Your task to perform on an android device: Check the weather Image 0: 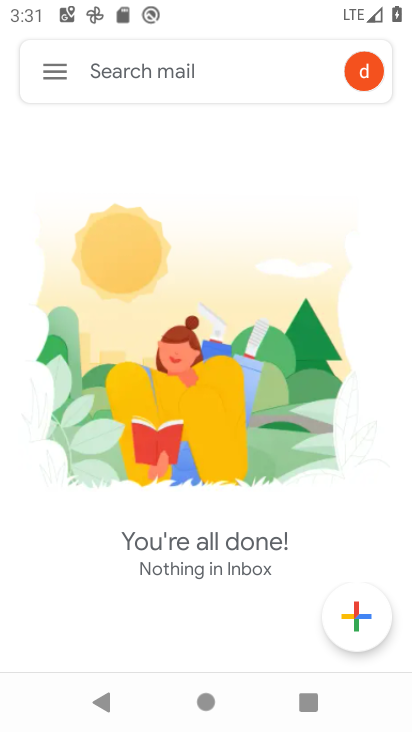
Step 0: press home button
Your task to perform on an android device: Check the weather Image 1: 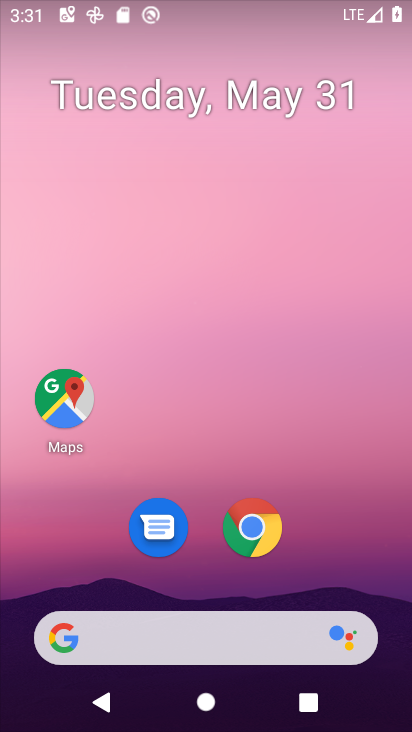
Step 1: drag from (370, 478) to (349, 118)
Your task to perform on an android device: Check the weather Image 2: 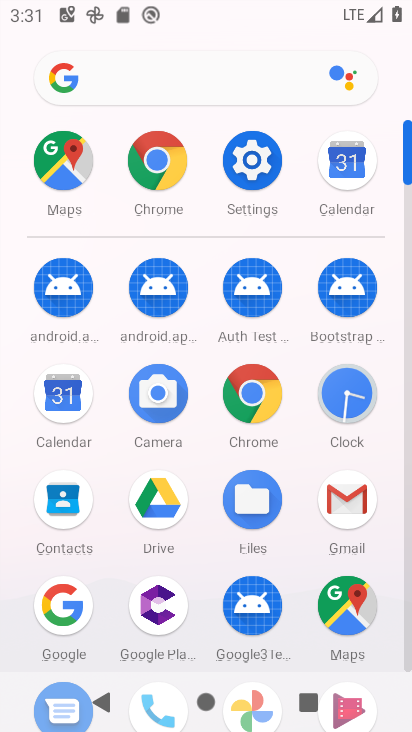
Step 2: click (56, 70)
Your task to perform on an android device: Check the weather Image 3: 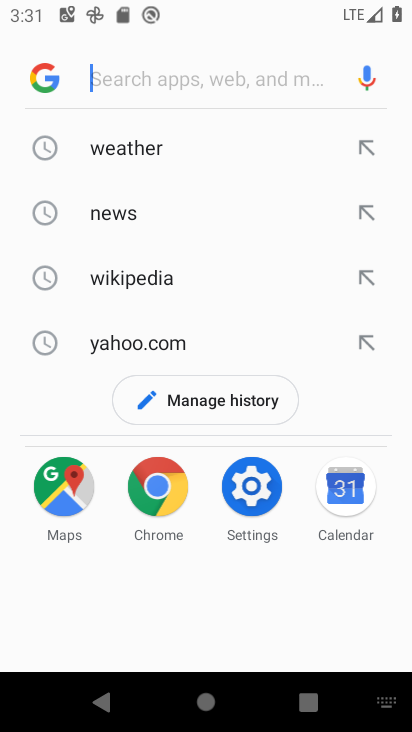
Step 3: click (56, 70)
Your task to perform on an android device: Check the weather Image 4: 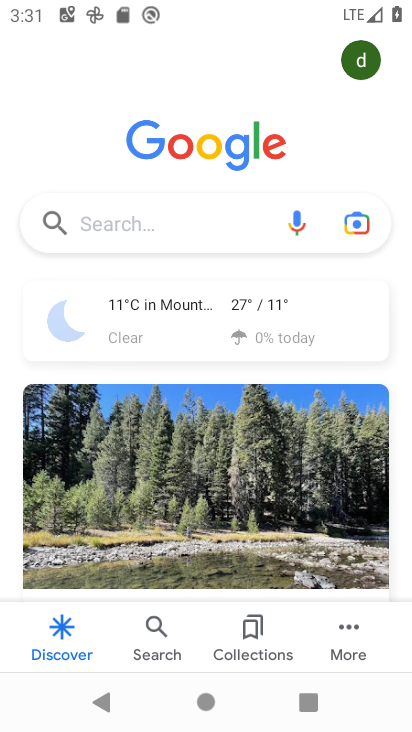
Step 4: click (165, 326)
Your task to perform on an android device: Check the weather Image 5: 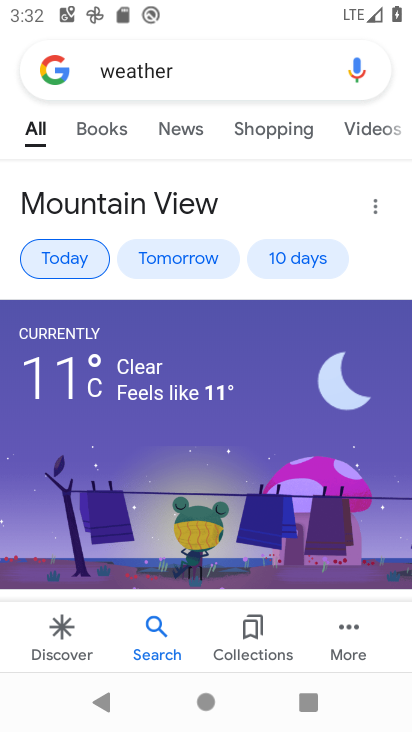
Step 5: task complete